Your task to perform on an android device: Search for the new Jordans on Nike.com Image 0: 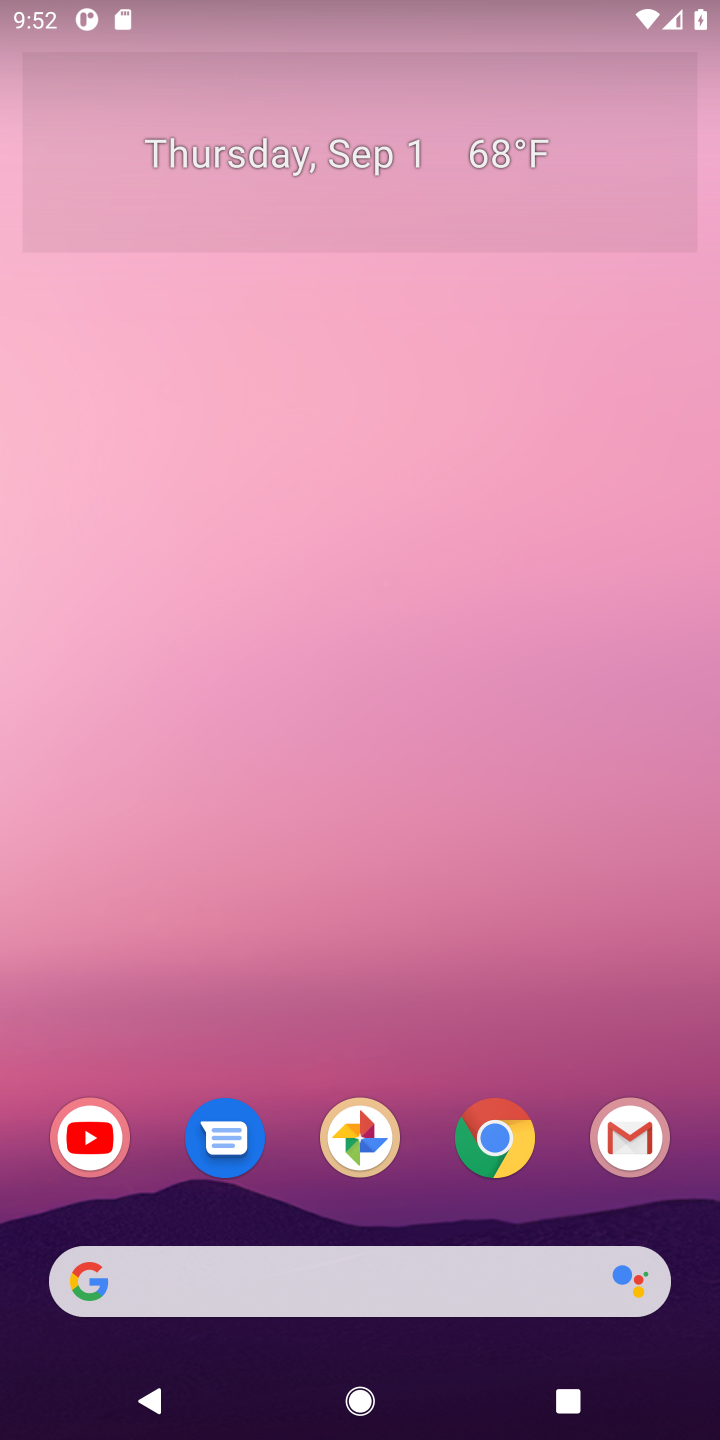
Step 0: click (488, 1145)
Your task to perform on an android device: Search for the new Jordans on Nike.com Image 1: 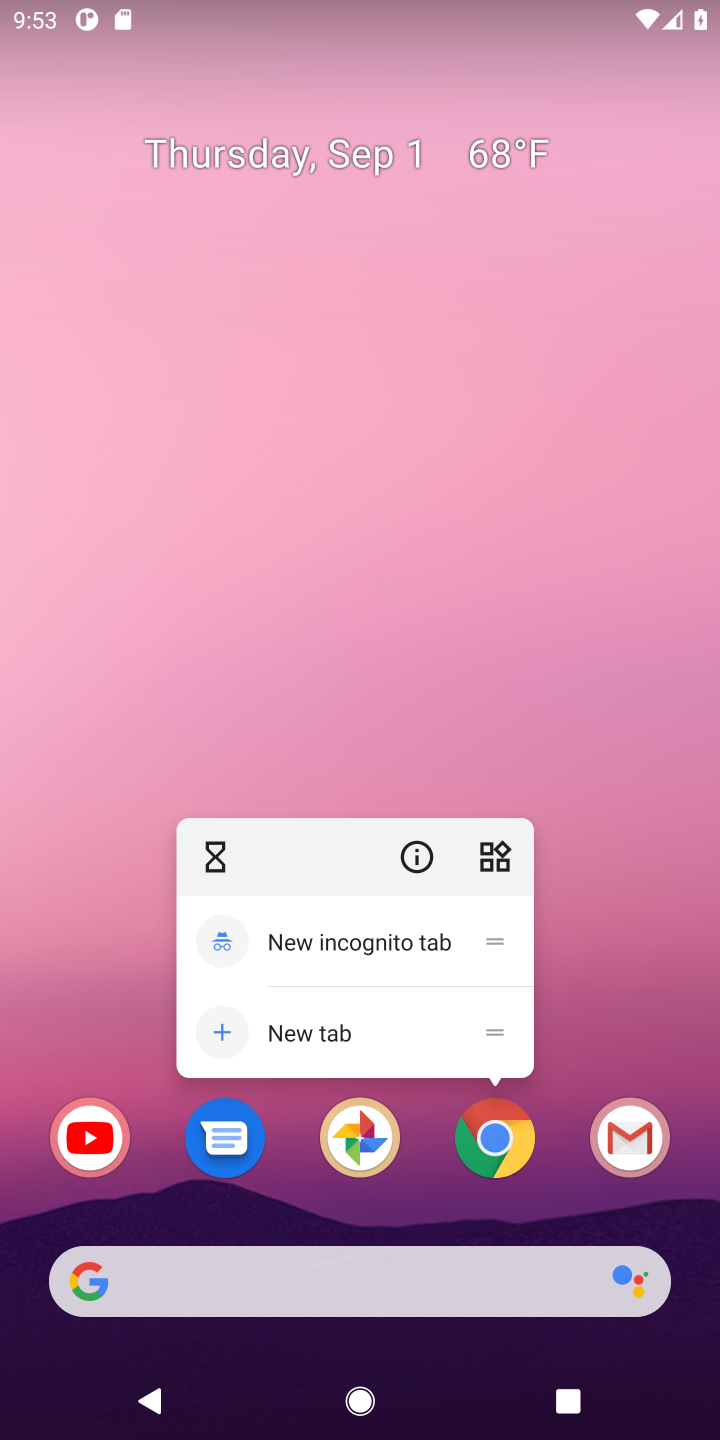
Step 1: click (488, 1167)
Your task to perform on an android device: Search for the new Jordans on Nike.com Image 2: 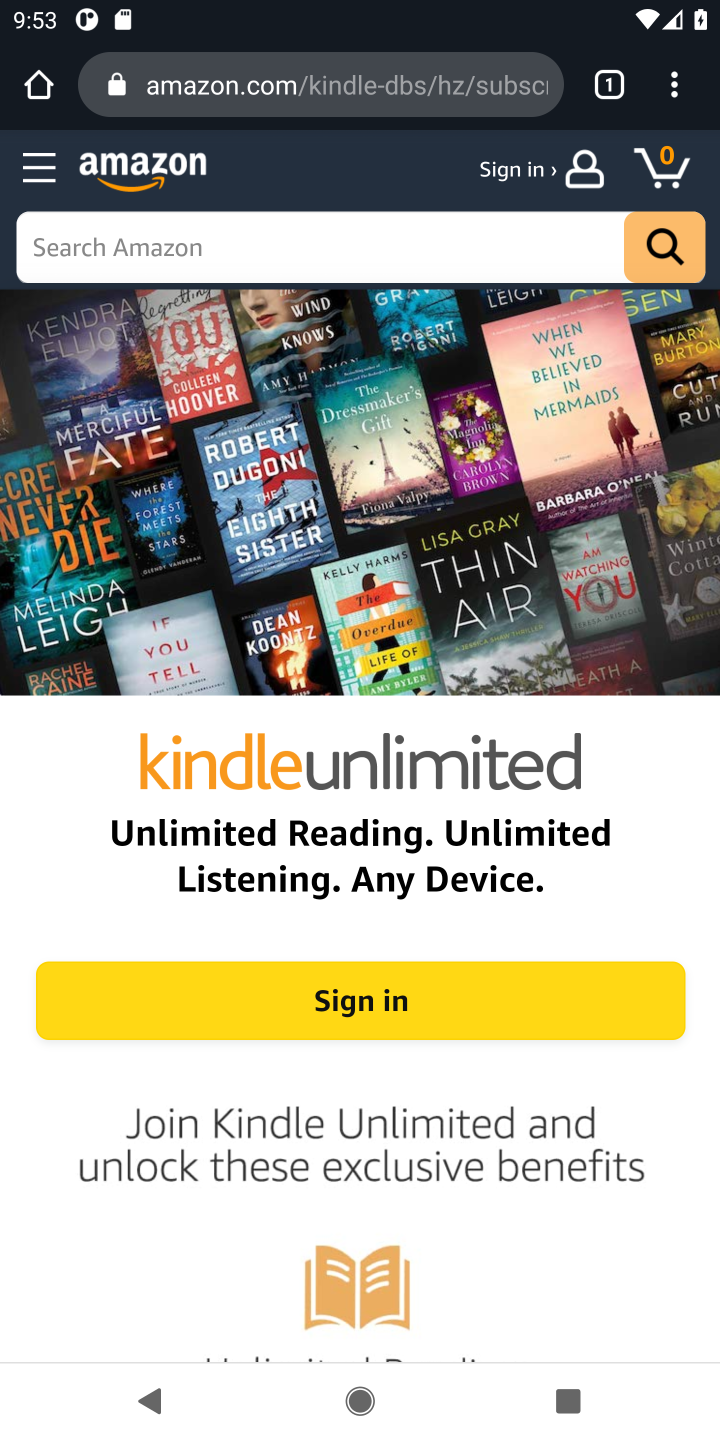
Step 2: click (663, 238)
Your task to perform on an android device: Search for the new Jordans on Nike.com Image 3: 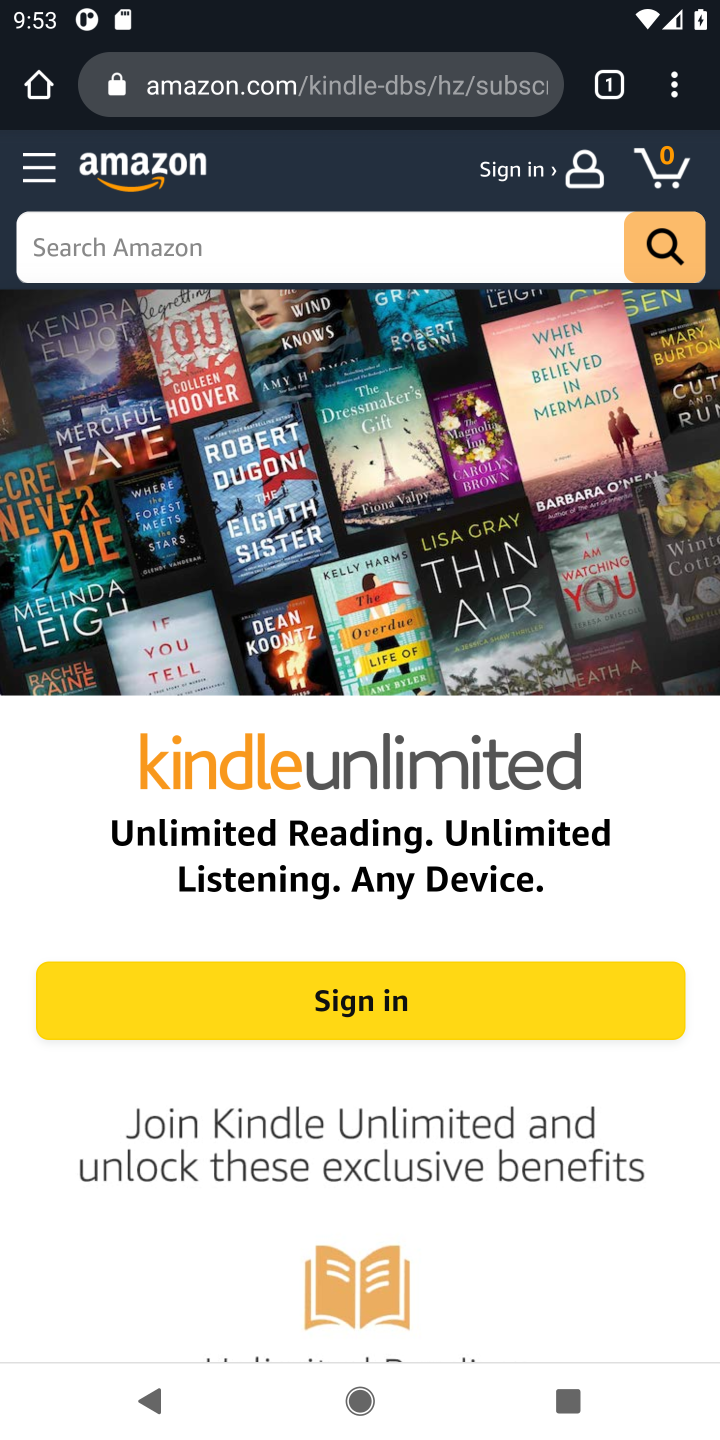
Step 3: click (393, 101)
Your task to perform on an android device: Search for the new Jordans on Nike.com Image 4: 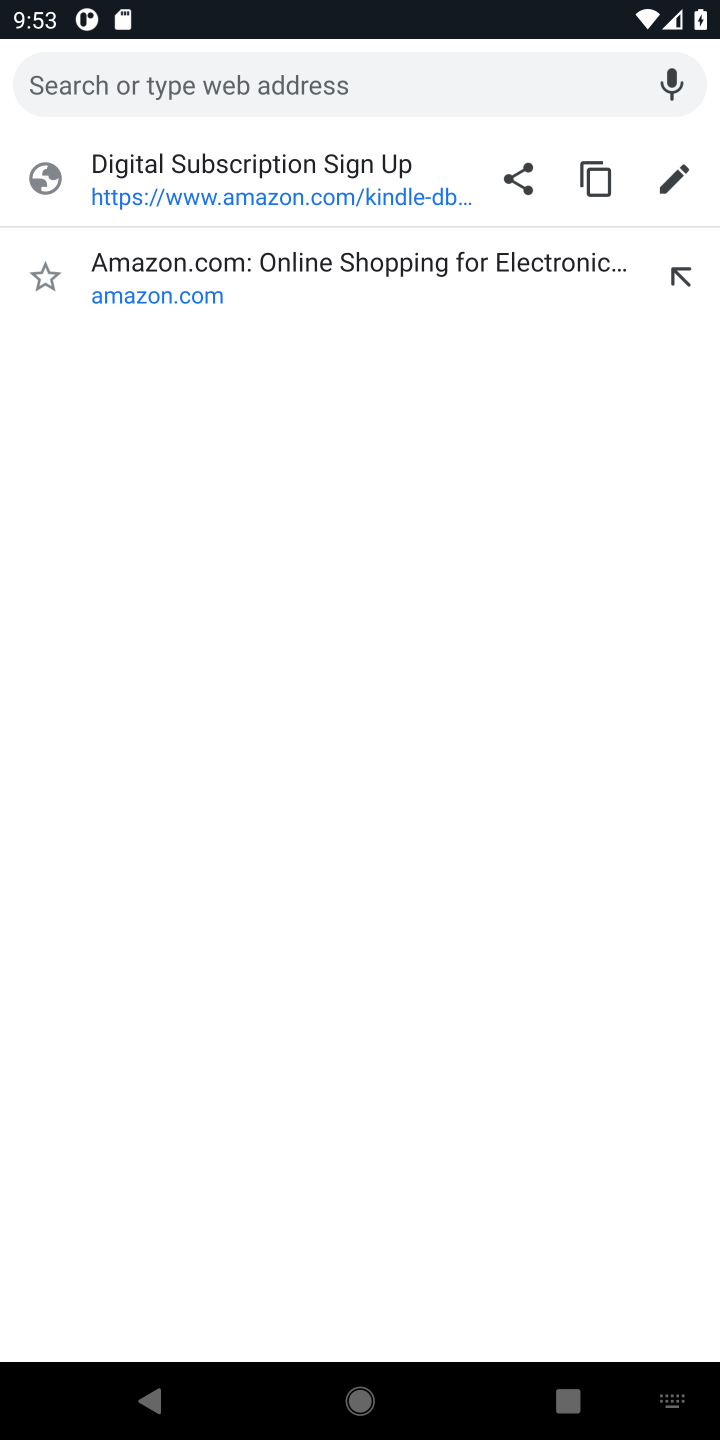
Step 4: type "the new Jordans on Nike.com"
Your task to perform on an android device: Search for the new Jordans on Nike.com Image 5: 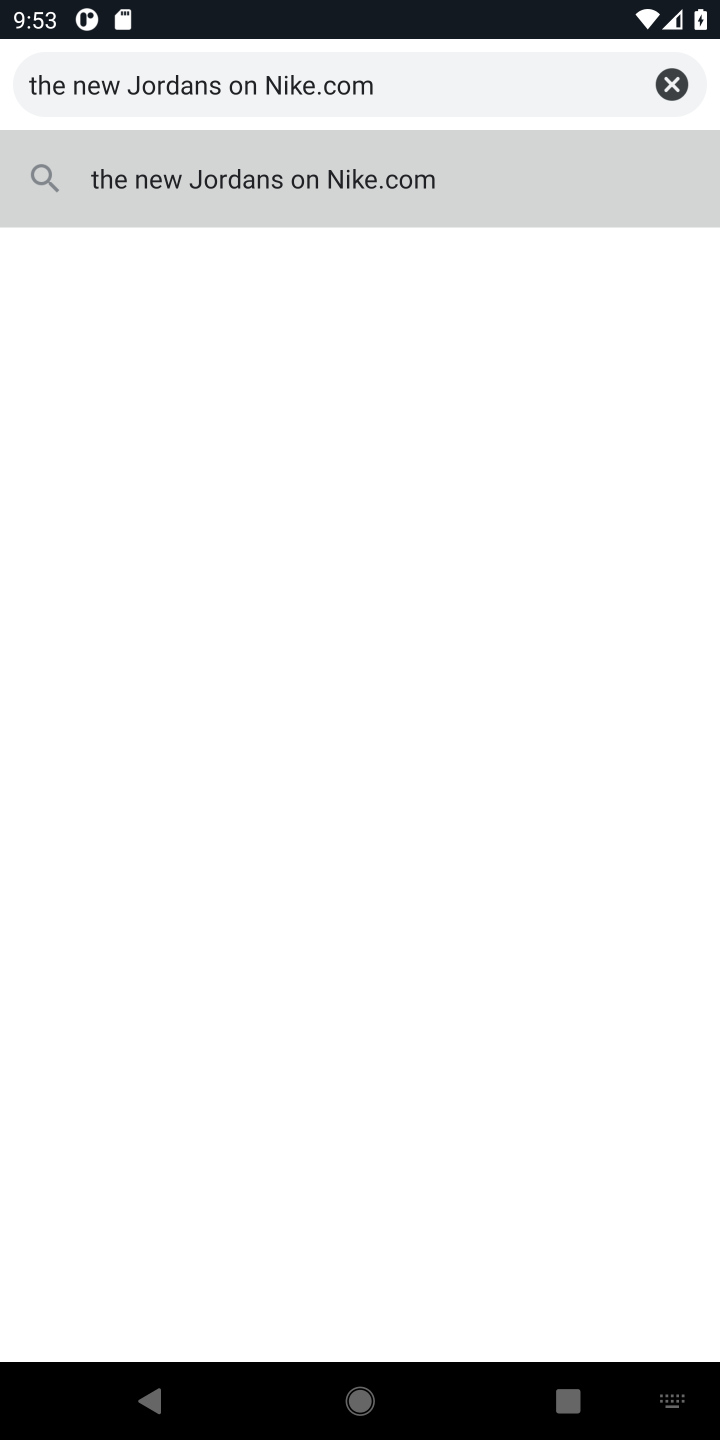
Step 5: click (322, 183)
Your task to perform on an android device: Search for the new Jordans on Nike.com Image 6: 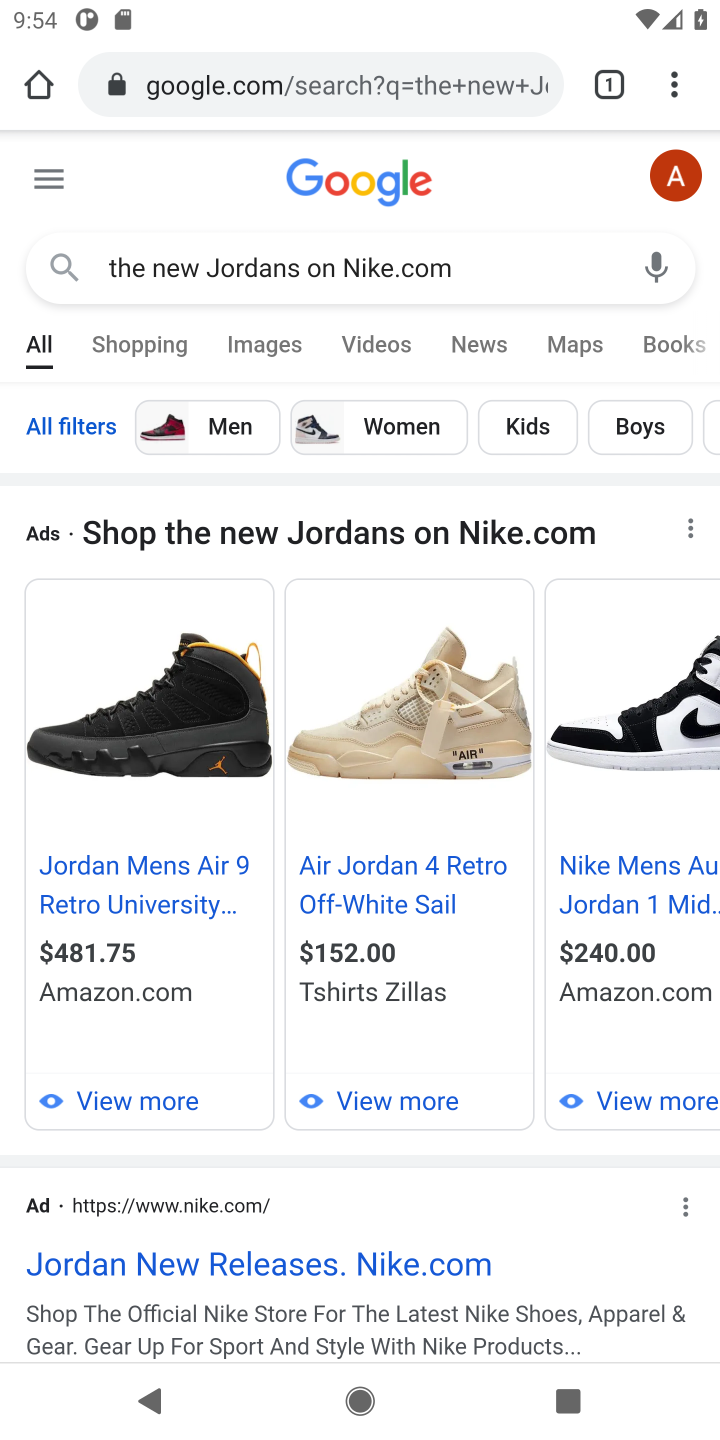
Step 6: task complete